Your task to perform on an android device: turn on notifications settings in the gmail app Image 0: 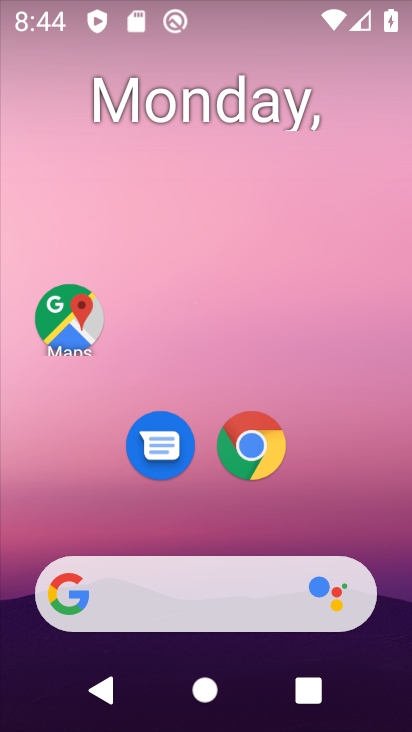
Step 0: drag from (388, 533) to (400, 108)
Your task to perform on an android device: turn on notifications settings in the gmail app Image 1: 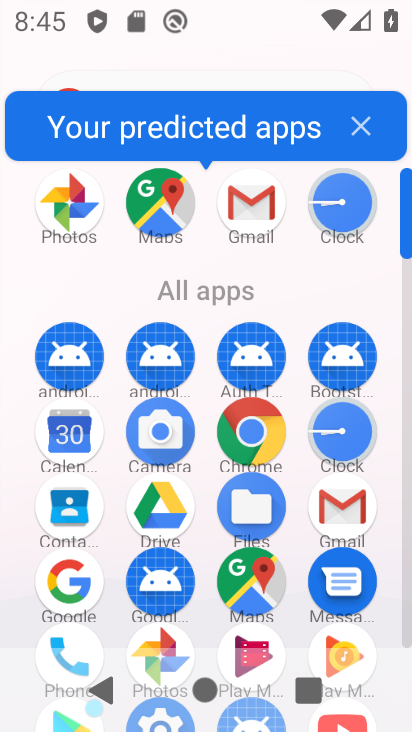
Step 1: click (349, 524)
Your task to perform on an android device: turn on notifications settings in the gmail app Image 2: 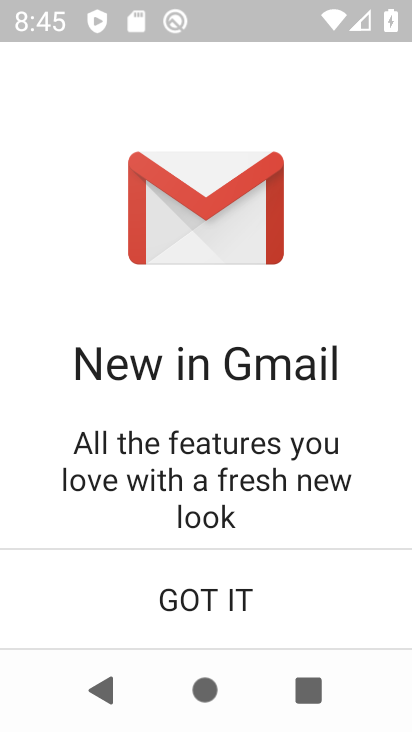
Step 2: click (244, 591)
Your task to perform on an android device: turn on notifications settings in the gmail app Image 3: 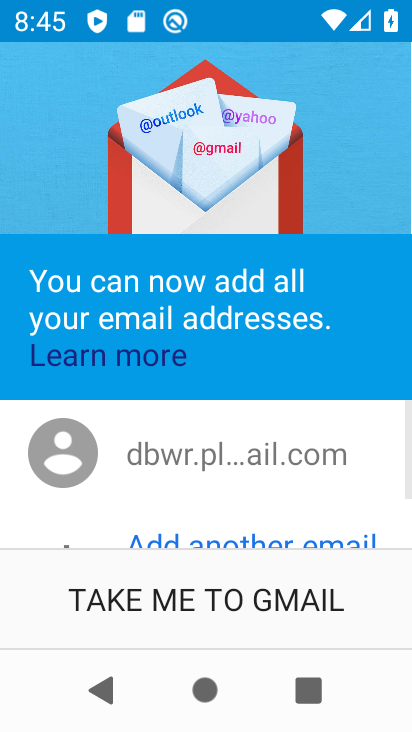
Step 3: click (244, 591)
Your task to perform on an android device: turn on notifications settings in the gmail app Image 4: 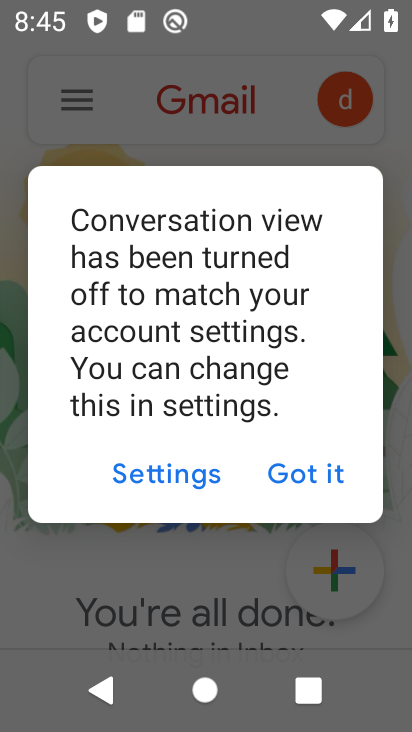
Step 4: click (279, 479)
Your task to perform on an android device: turn on notifications settings in the gmail app Image 5: 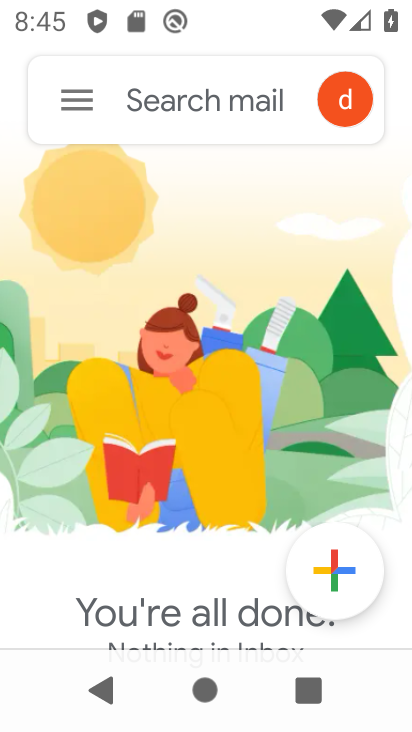
Step 5: click (85, 113)
Your task to perform on an android device: turn on notifications settings in the gmail app Image 6: 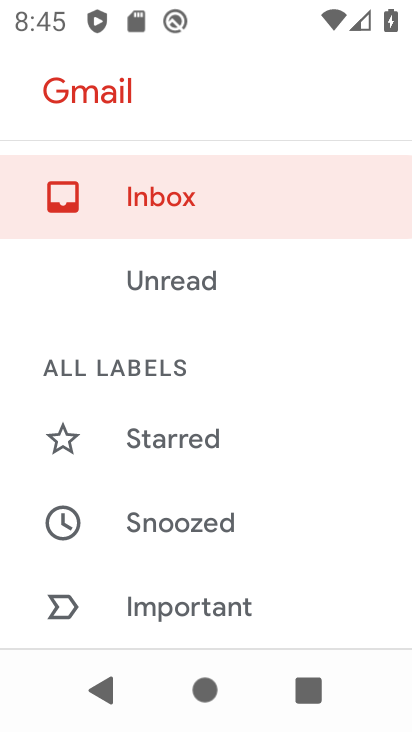
Step 6: drag from (303, 449) to (304, 359)
Your task to perform on an android device: turn on notifications settings in the gmail app Image 7: 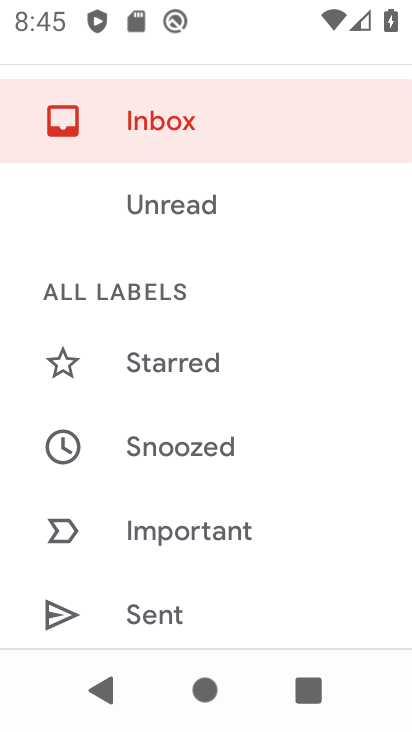
Step 7: drag from (332, 516) to (328, 392)
Your task to perform on an android device: turn on notifications settings in the gmail app Image 8: 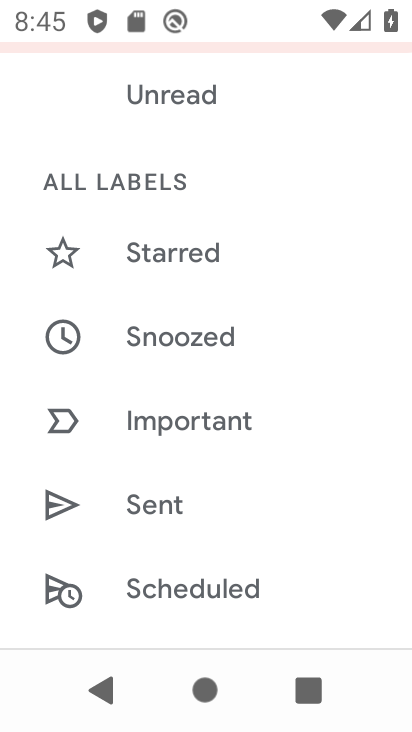
Step 8: drag from (346, 532) to (355, 428)
Your task to perform on an android device: turn on notifications settings in the gmail app Image 9: 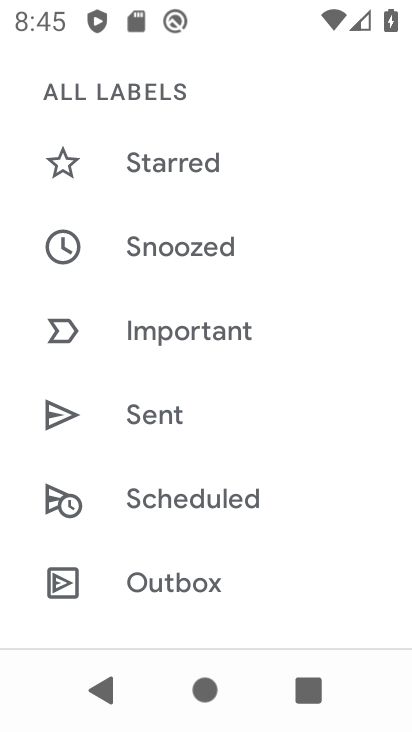
Step 9: drag from (352, 561) to (353, 449)
Your task to perform on an android device: turn on notifications settings in the gmail app Image 10: 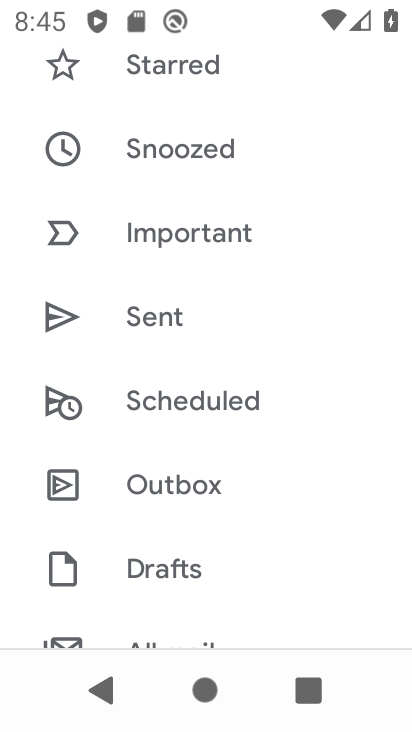
Step 10: drag from (352, 569) to (354, 447)
Your task to perform on an android device: turn on notifications settings in the gmail app Image 11: 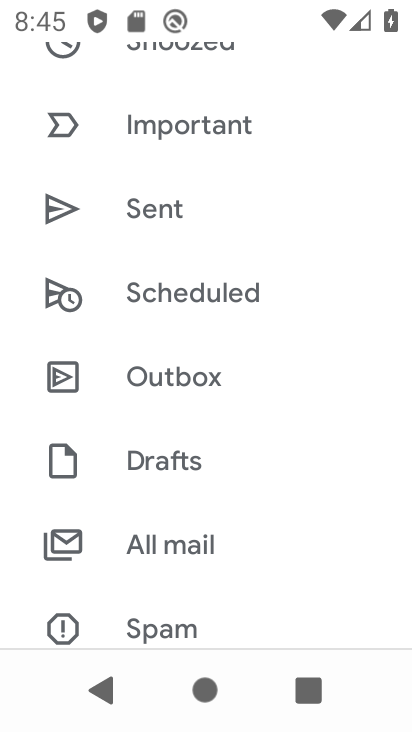
Step 11: drag from (338, 556) to (348, 439)
Your task to perform on an android device: turn on notifications settings in the gmail app Image 12: 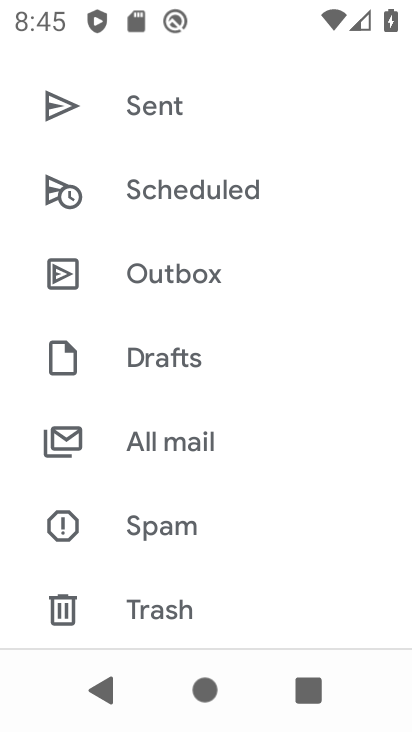
Step 12: drag from (334, 558) to (347, 445)
Your task to perform on an android device: turn on notifications settings in the gmail app Image 13: 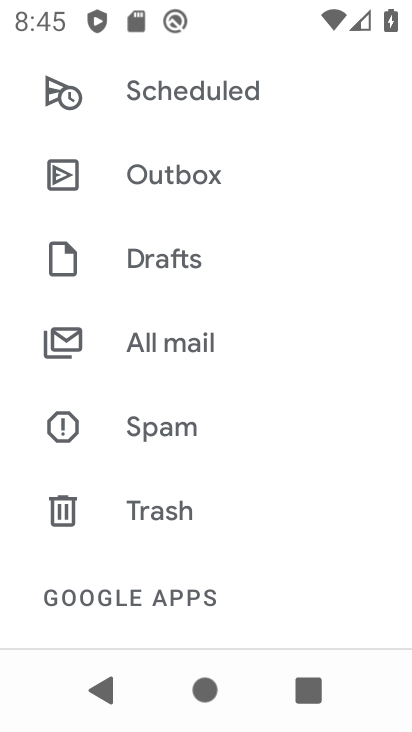
Step 13: drag from (313, 509) to (335, 387)
Your task to perform on an android device: turn on notifications settings in the gmail app Image 14: 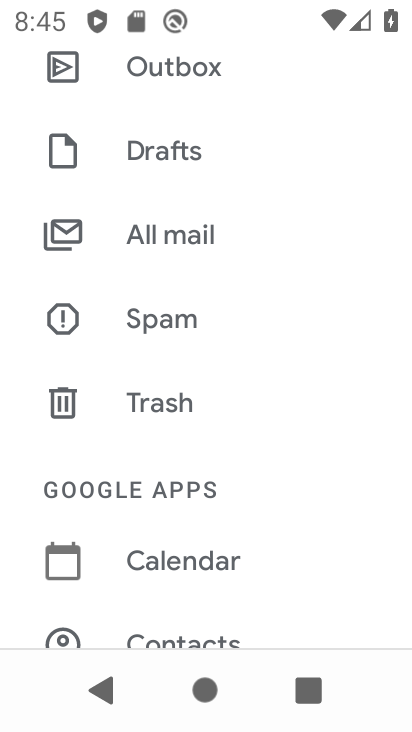
Step 14: drag from (339, 511) to (344, 382)
Your task to perform on an android device: turn on notifications settings in the gmail app Image 15: 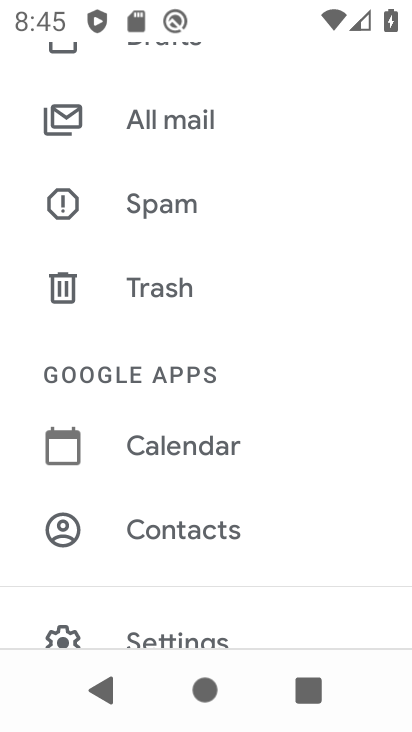
Step 15: drag from (338, 551) to (351, 356)
Your task to perform on an android device: turn on notifications settings in the gmail app Image 16: 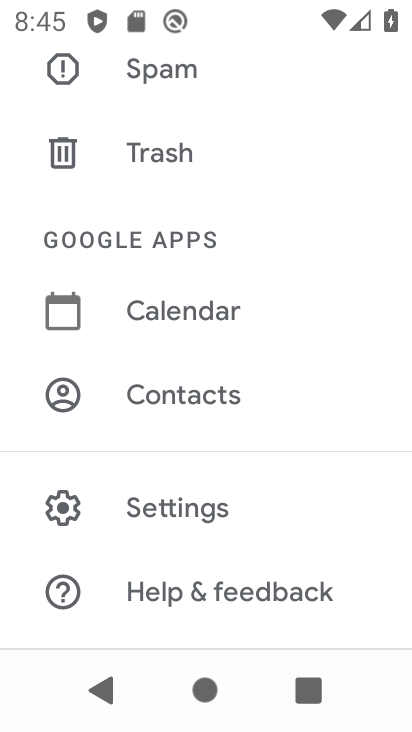
Step 16: click (257, 513)
Your task to perform on an android device: turn on notifications settings in the gmail app Image 17: 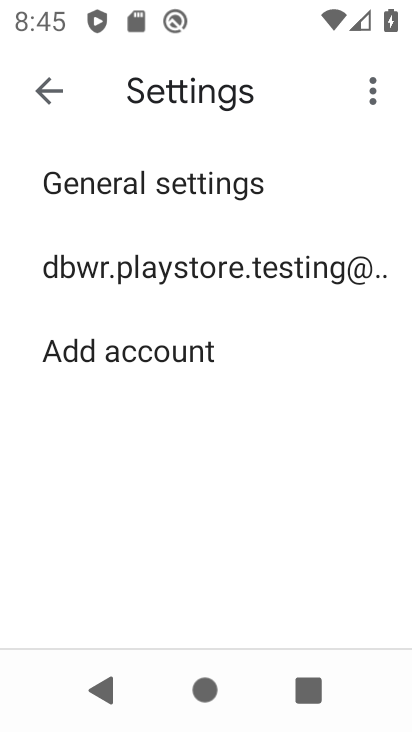
Step 17: click (296, 269)
Your task to perform on an android device: turn on notifications settings in the gmail app Image 18: 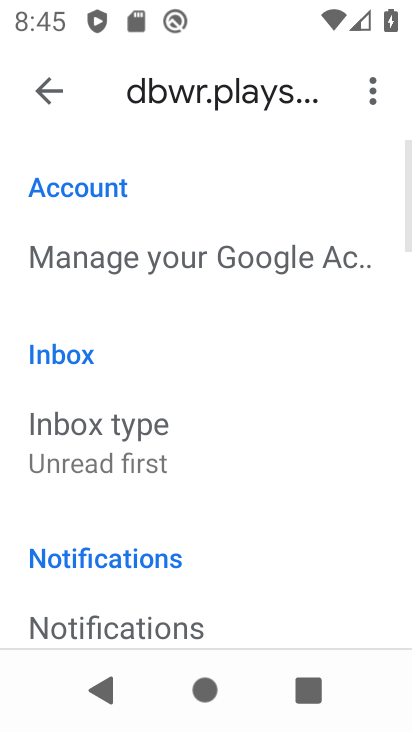
Step 18: drag from (331, 497) to (331, 392)
Your task to perform on an android device: turn on notifications settings in the gmail app Image 19: 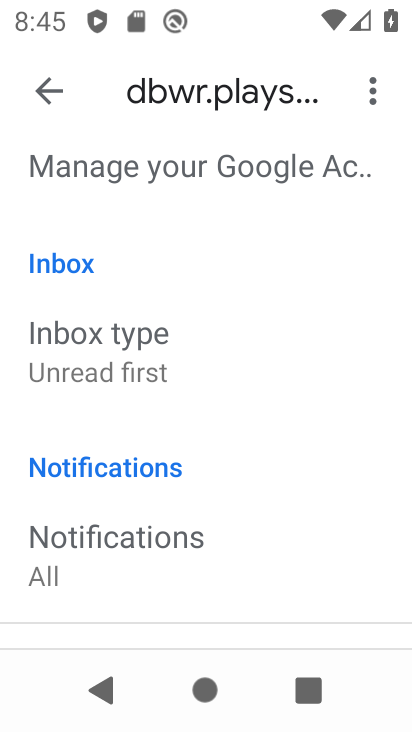
Step 19: drag from (337, 497) to (353, 379)
Your task to perform on an android device: turn on notifications settings in the gmail app Image 20: 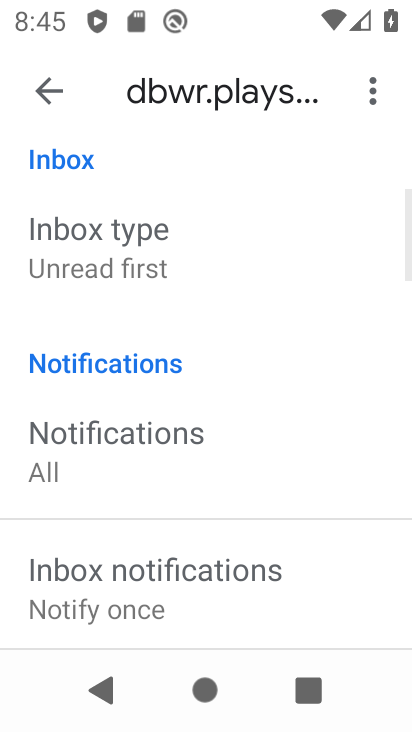
Step 20: drag from (357, 507) to (353, 387)
Your task to perform on an android device: turn on notifications settings in the gmail app Image 21: 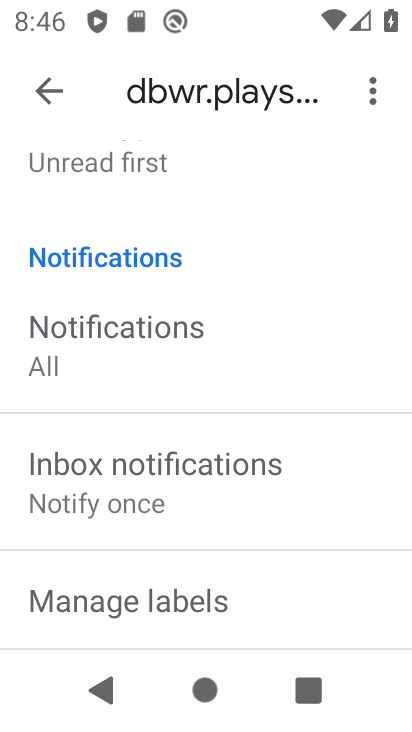
Step 21: drag from (348, 501) to (346, 381)
Your task to perform on an android device: turn on notifications settings in the gmail app Image 22: 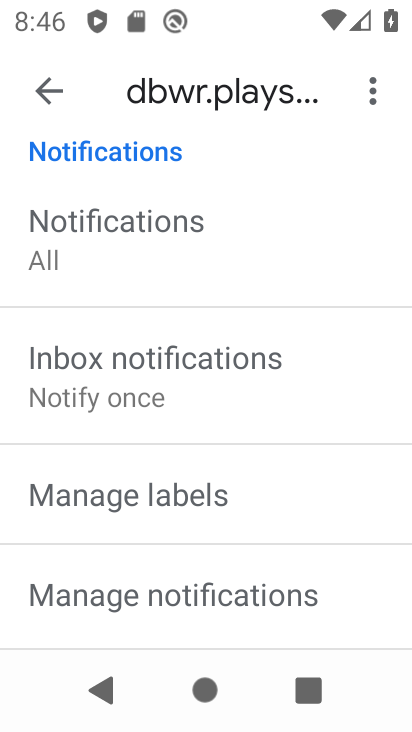
Step 22: drag from (340, 526) to (349, 380)
Your task to perform on an android device: turn on notifications settings in the gmail app Image 23: 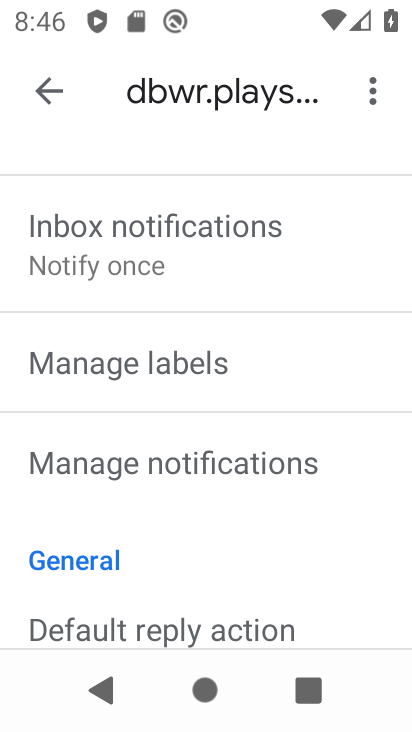
Step 23: drag from (358, 520) to (369, 405)
Your task to perform on an android device: turn on notifications settings in the gmail app Image 24: 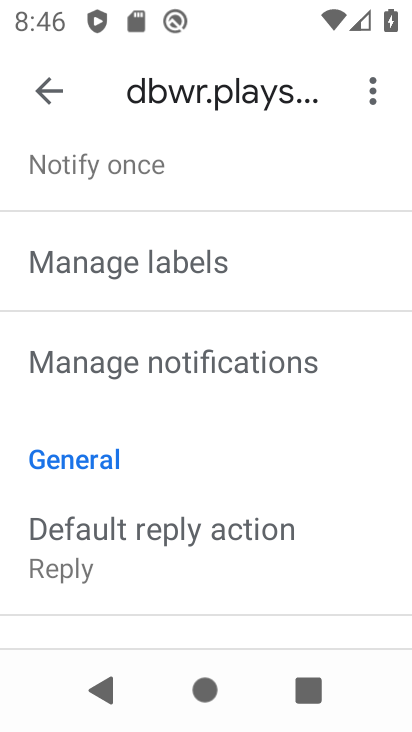
Step 24: click (329, 366)
Your task to perform on an android device: turn on notifications settings in the gmail app Image 25: 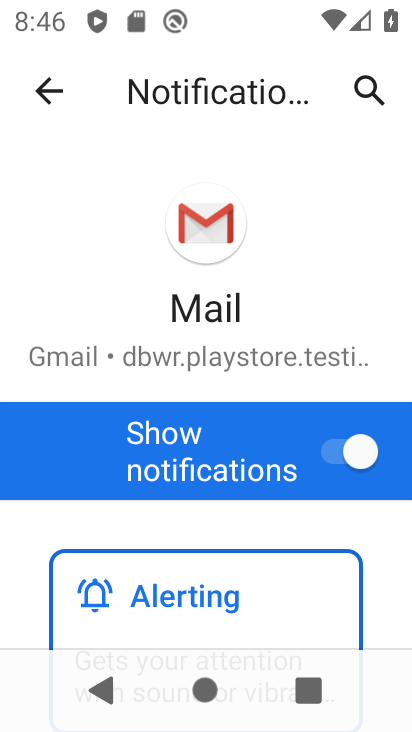
Step 25: task complete